Your task to perform on an android device: change keyboard looks Image 0: 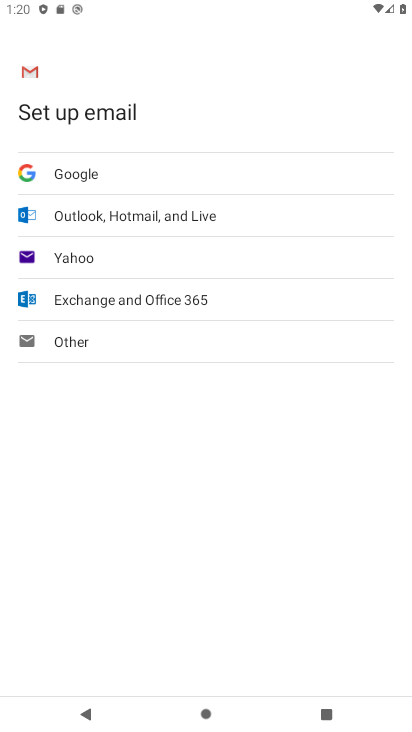
Step 0: press home button
Your task to perform on an android device: change keyboard looks Image 1: 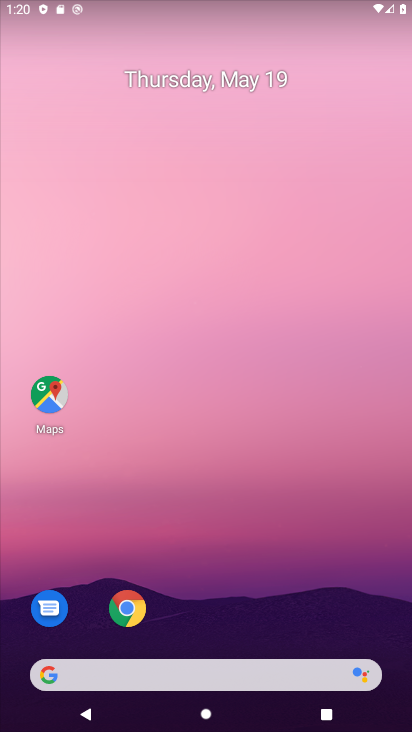
Step 1: drag from (262, 590) to (249, 154)
Your task to perform on an android device: change keyboard looks Image 2: 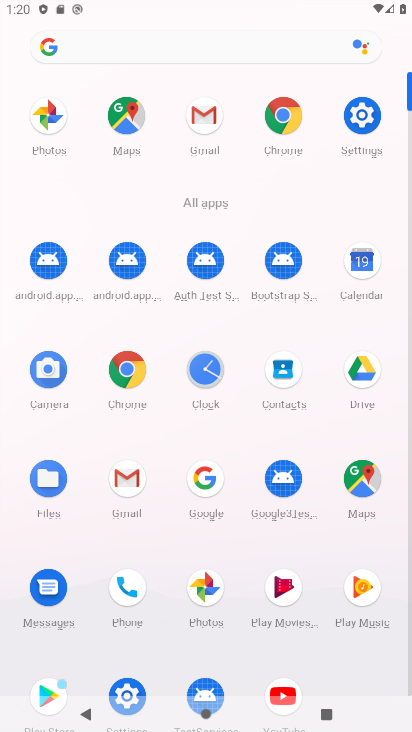
Step 2: click (373, 142)
Your task to perform on an android device: change keyboard looks Image 3: 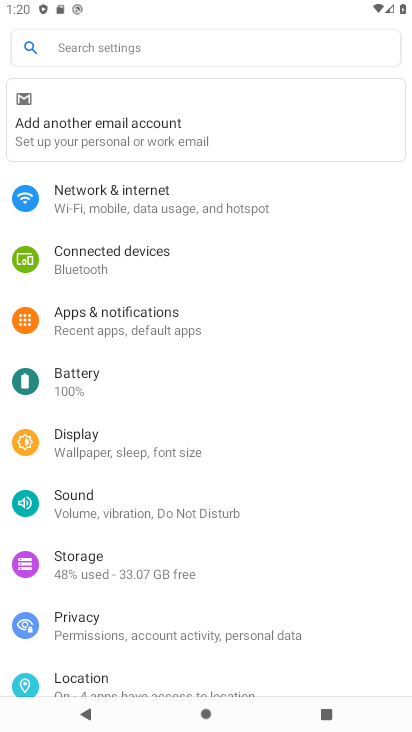
Step 3: drag from (179, 595) to (167, 205)
Your task to perform on an android device: change keyboard looks Image 4: 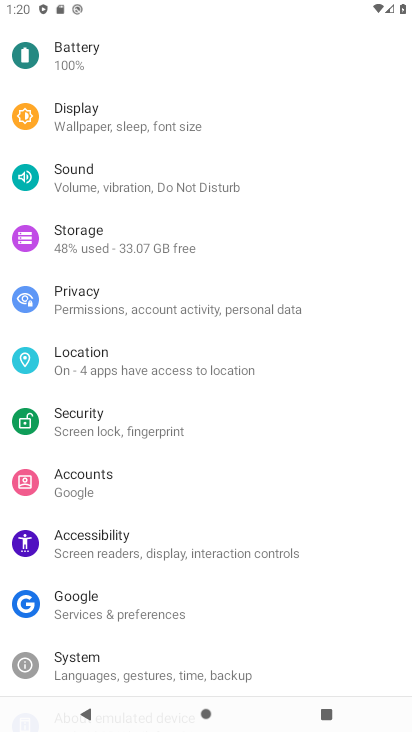
Step 4: click (177, 593)
Your task to perform on an android device: change keyboard looks Image 5: 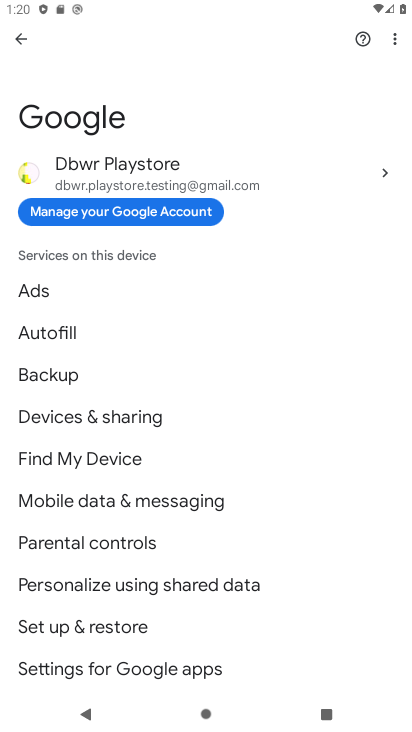
Step 5: click (15, 50)
Your task to perform on an android device: change keyboard looks Image 6: 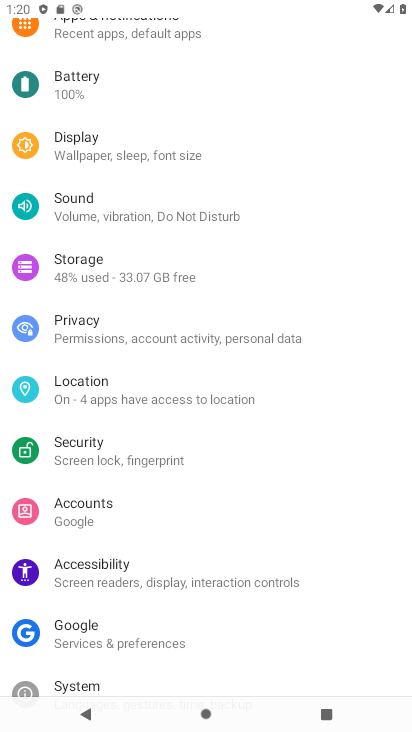
Step 6: drag from (143, 632) to (148, 395)
Your task to perform on an android device: change keyboard looks Image 7: 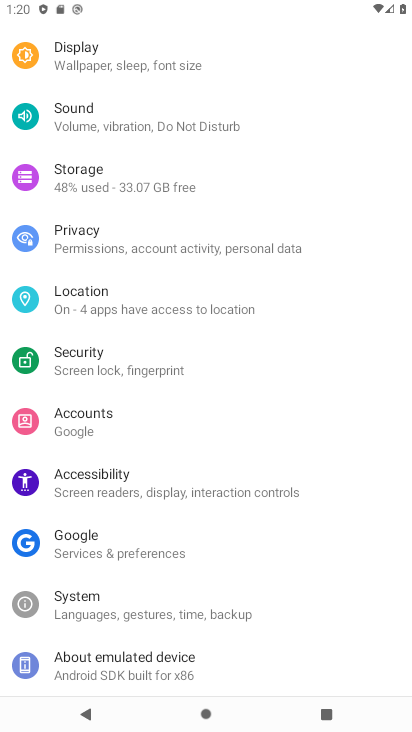
Step 7: click (152, 618)
Your task to perform on an android device: change keyboard looks Image 8: 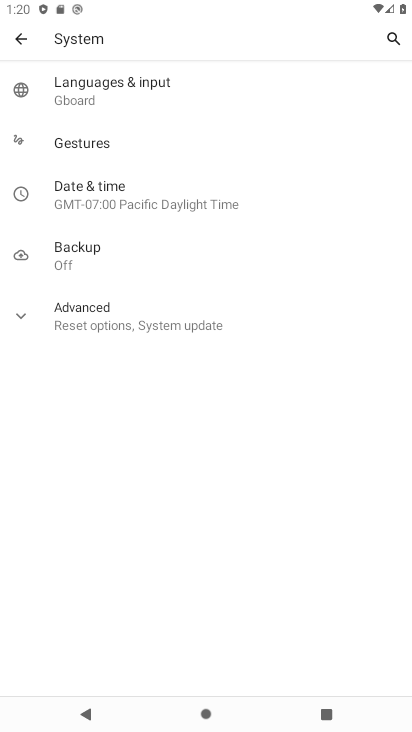
Step 8: click (224, 93)
Your task to perform on an android device: change keyboard looks Image 9: 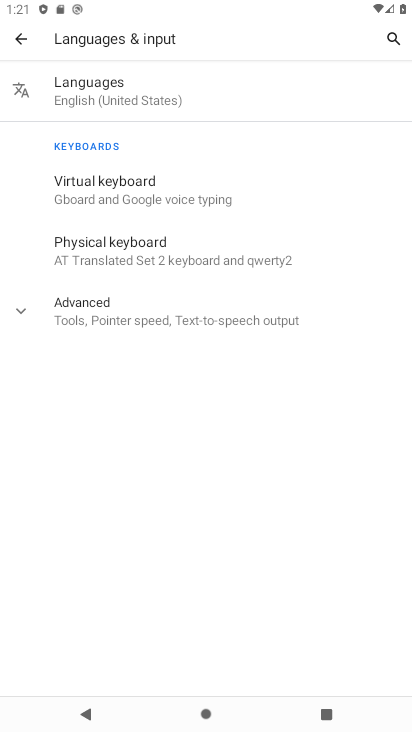
Step 9: click (215, 200)
Your task to perform on an android device: change keyboard looks Image 10: 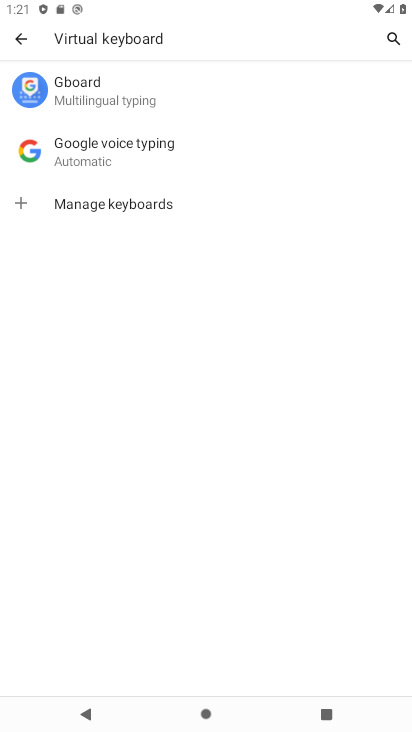
Step 10: click (184, 94)
Your task to perform on an android device: change keyboard looks Image 11: 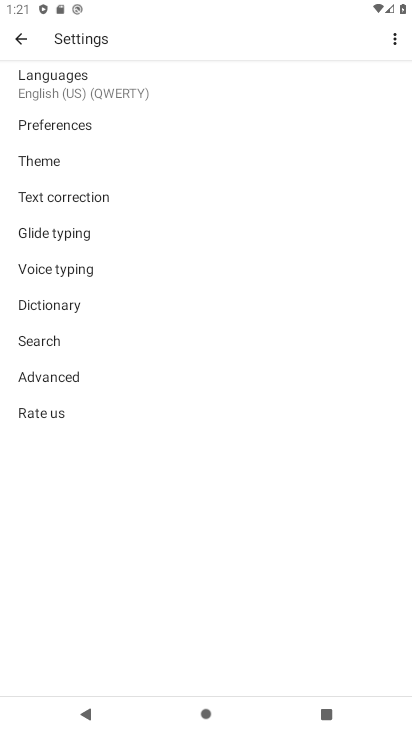
Step 11: click (170, 158)
Your task to perform on an android device: change keyboard looks Image 12: 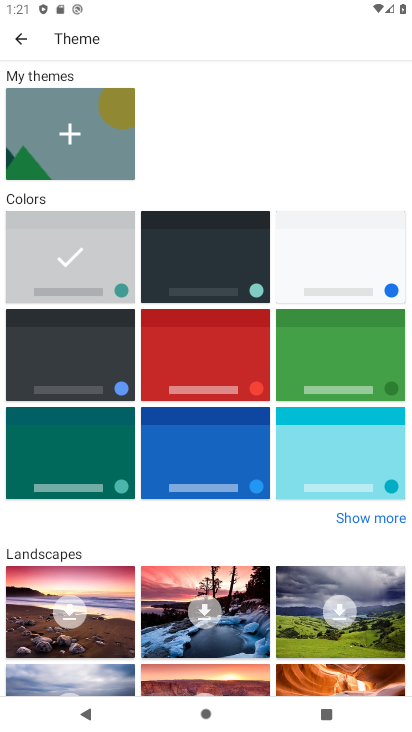
Step 12: click (188, 275)
Your task to perform on an android device: change keyboard looks Image 13: 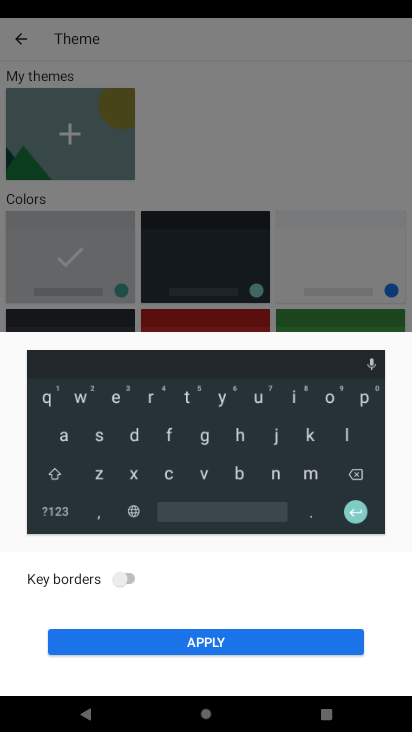
Step 13: click (197, 641)
Your task to perform on an android device: change keyboard looks Image 14: 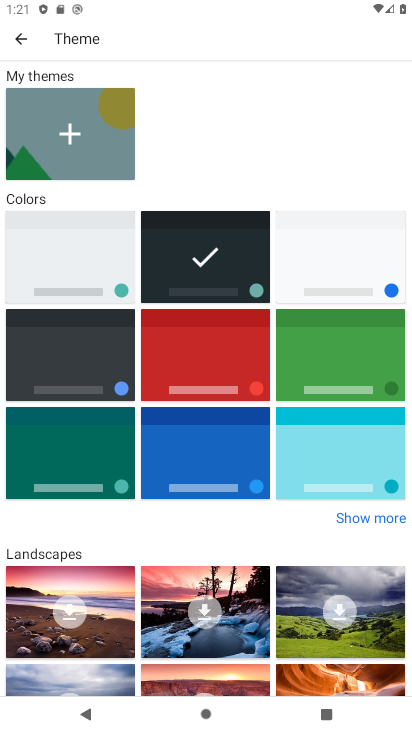
Step 14: task complete